Your task to perform on an android device: uninstall "Google Keep" Image 0: 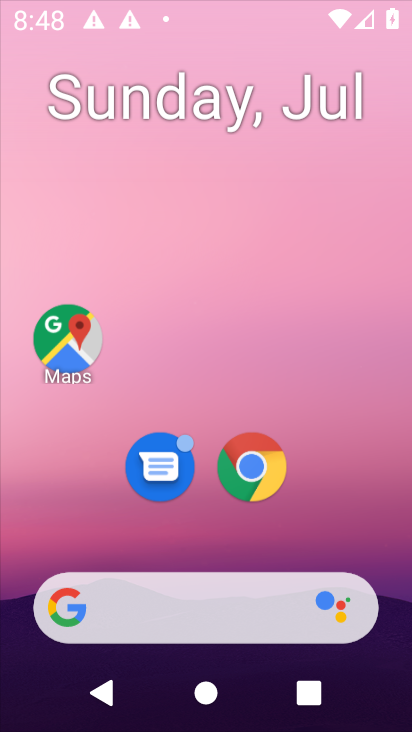
Step 0: click (225, 52)
Your task to perform on an android device: uninstall "Google Keep" Image 1: 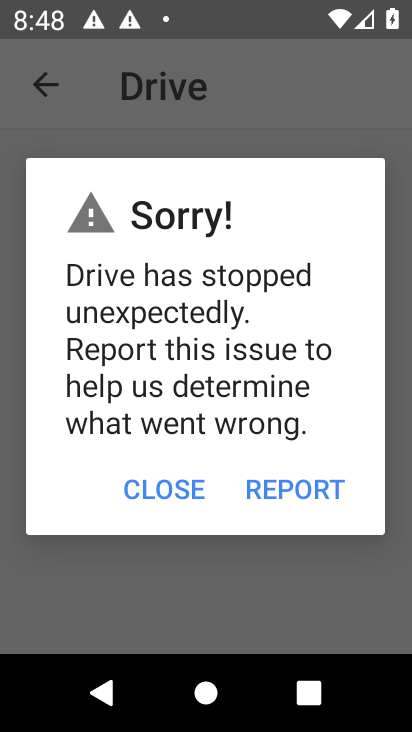
Step 1: click (159, 499)
Your task to perform on an android device: uninstall "Google Keep" Image 2: 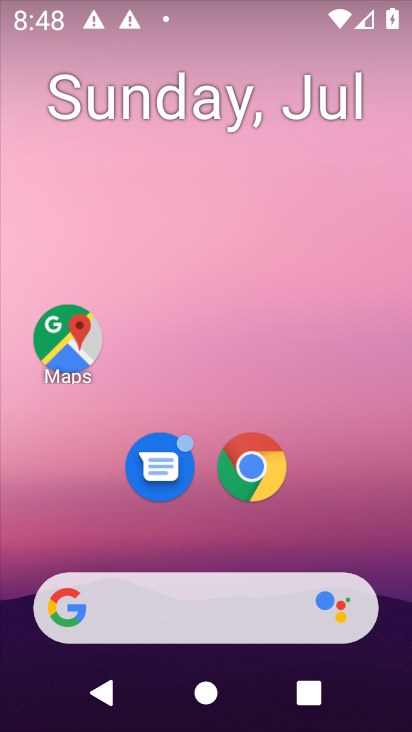
Step 2: drag from (165, 561) to (226, 34)
Your task to perform on an android device: uninstall "Google Keep" Image 3: 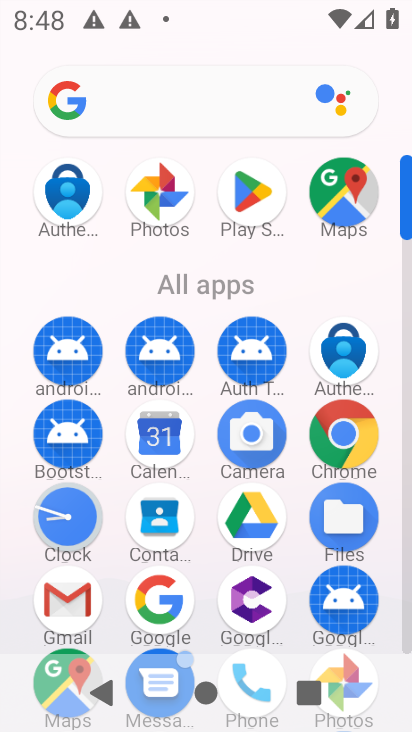
Step 3: click (258, 180)
Your task to perform on an android device: uninstall "Google Keep" Image 4: 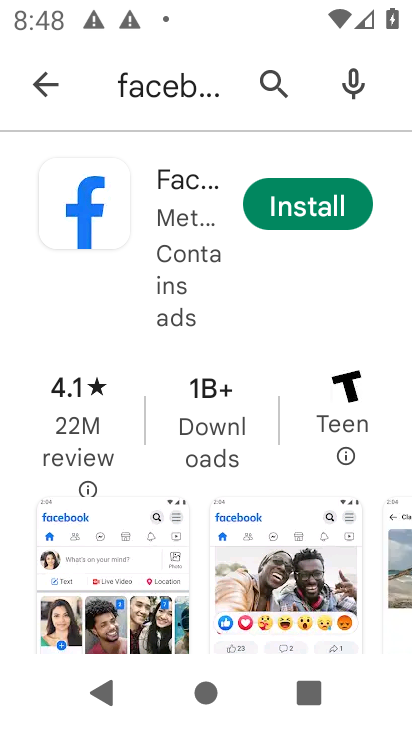
Step 4: click (277, 80)
Your task to perform on an android device: uninstall "Google Keep" Image 5: 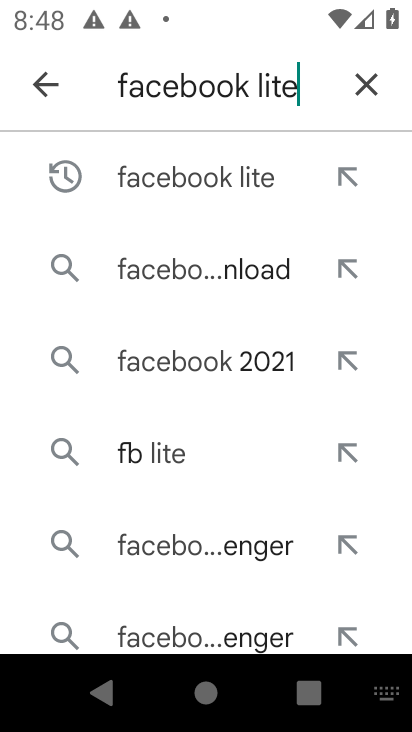
Step 5: click (360, 88)
Your task to perform on an android device: uninstall "Google Keep" Image 6: 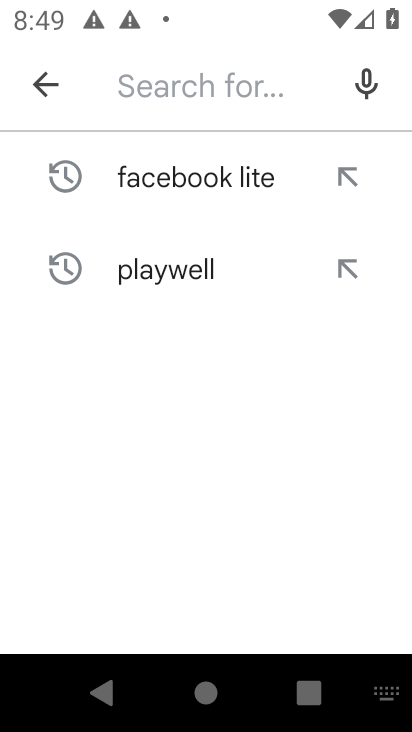
Step 6: type "google keep"
Your task to perform on an android device: uninstall "Google Keep" Image 7: 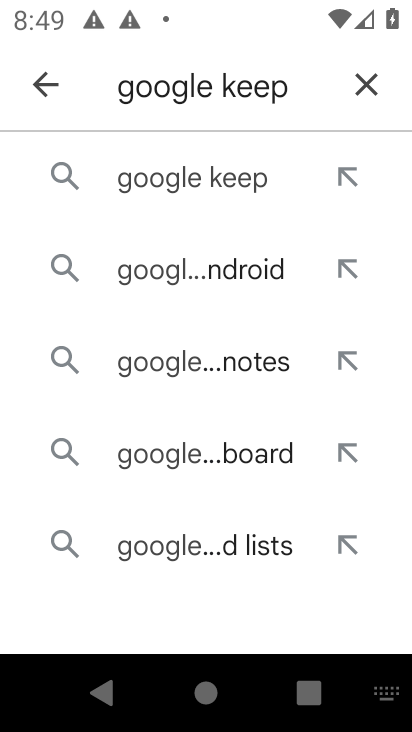
Step 7: click (217, 192)
Your task to perform on an android device: uninstall "Google Keep" Image 8: 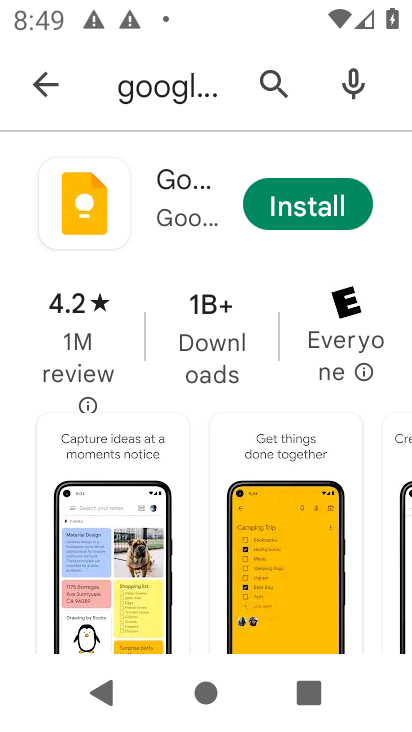
Step 8: task complete